Your task to perform on an android device: Go to Reddit.com Image 0: 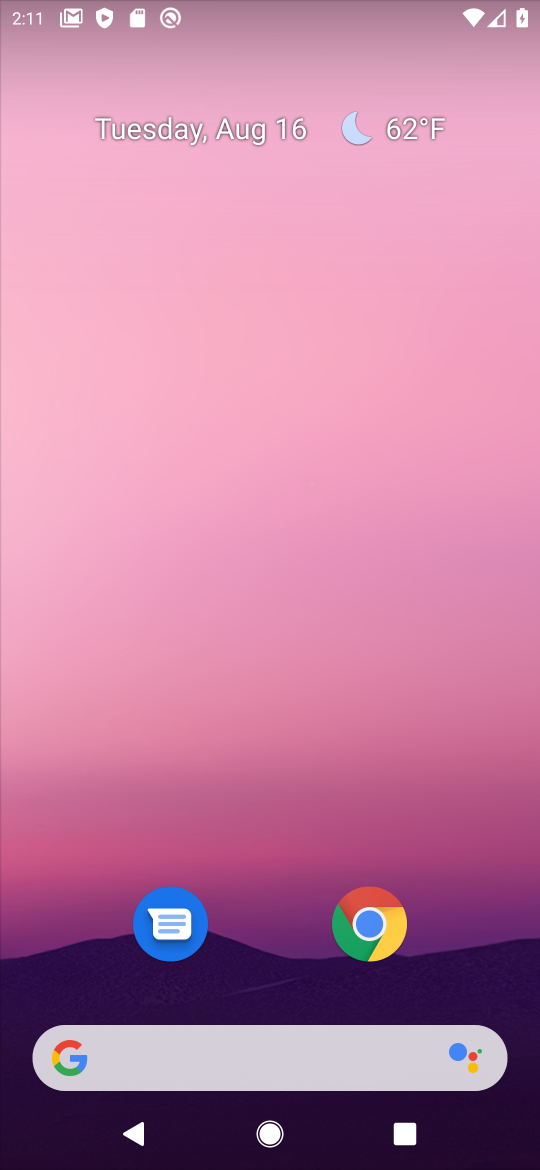
Step 0: click (367, 928)
Your task to perform on an android device: Go to Reddit.com Image 1: 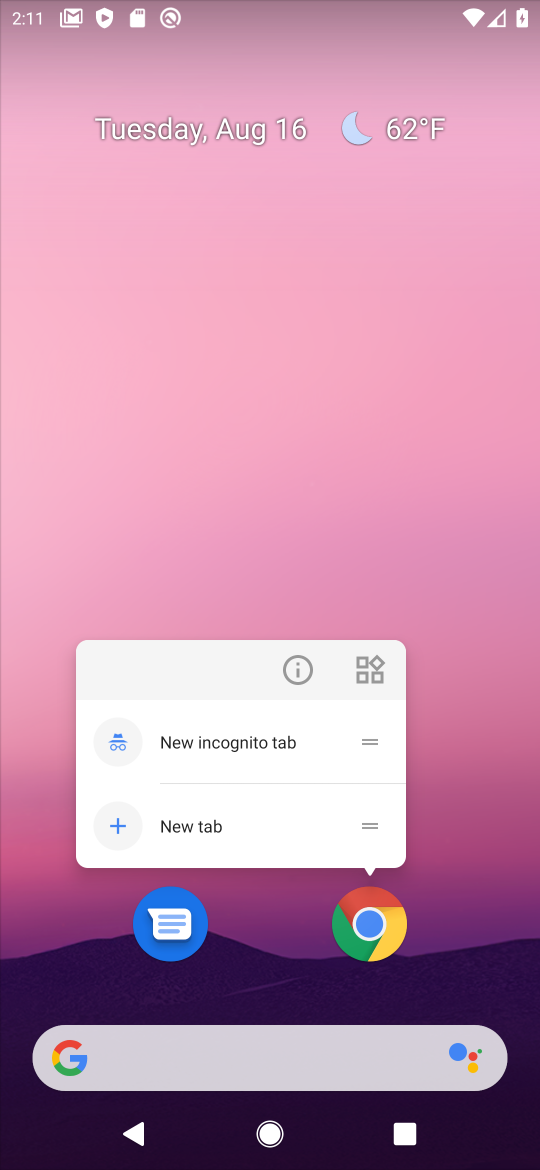
Step 1: click (367, 928)
Your task to perform on an android device: Go to Reddit.com Image 2: 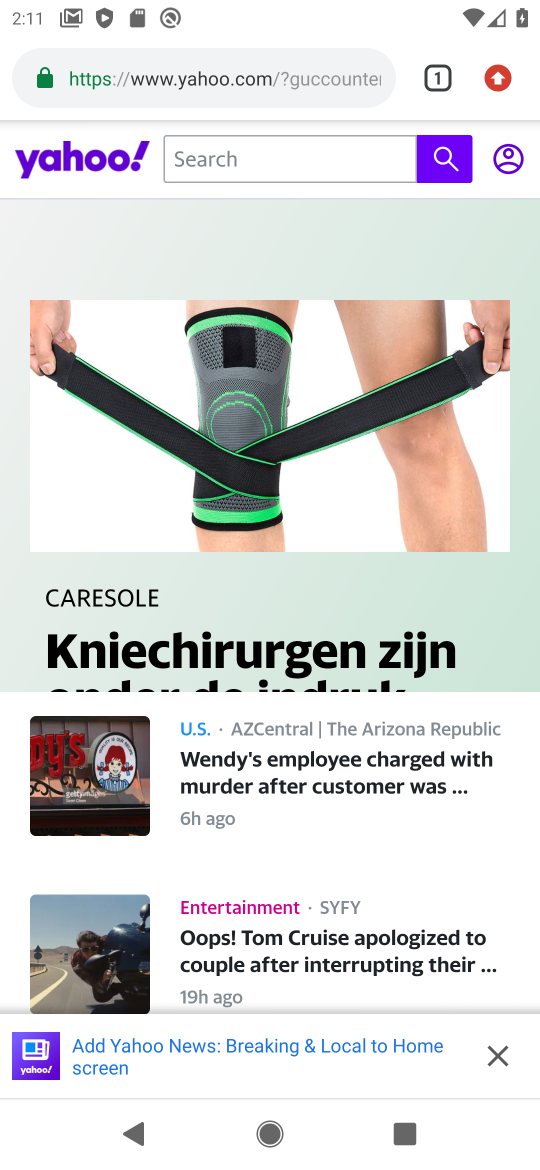
Step 2: click (346, 59)
Your task to perform on an android device: Go to Reddit.com Image 3: 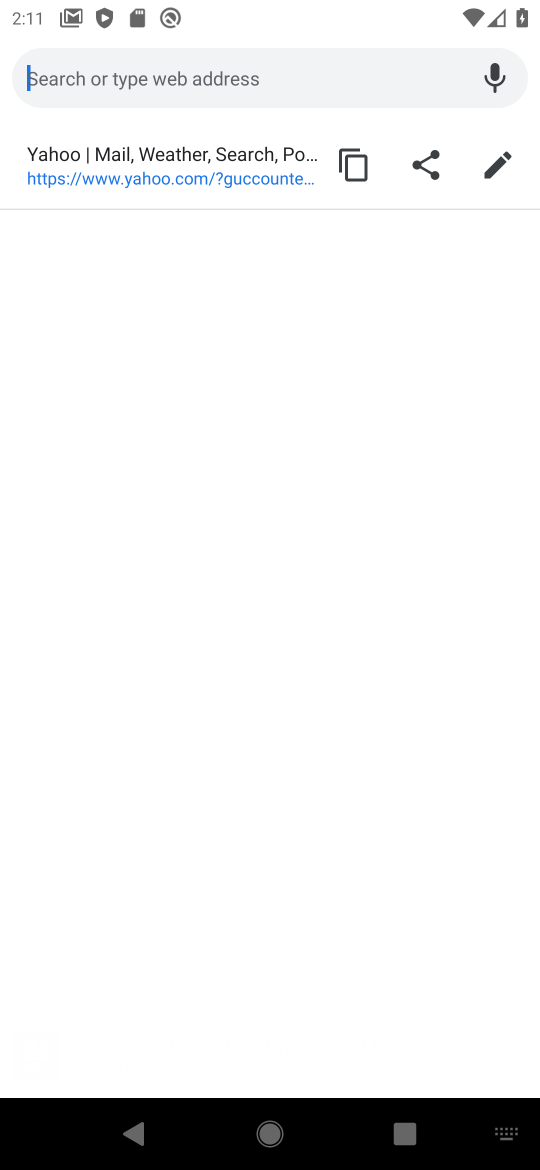
Step 3: type "reddit.com"
Your task to perform on an android device: Go to Reddit.com Image 4: 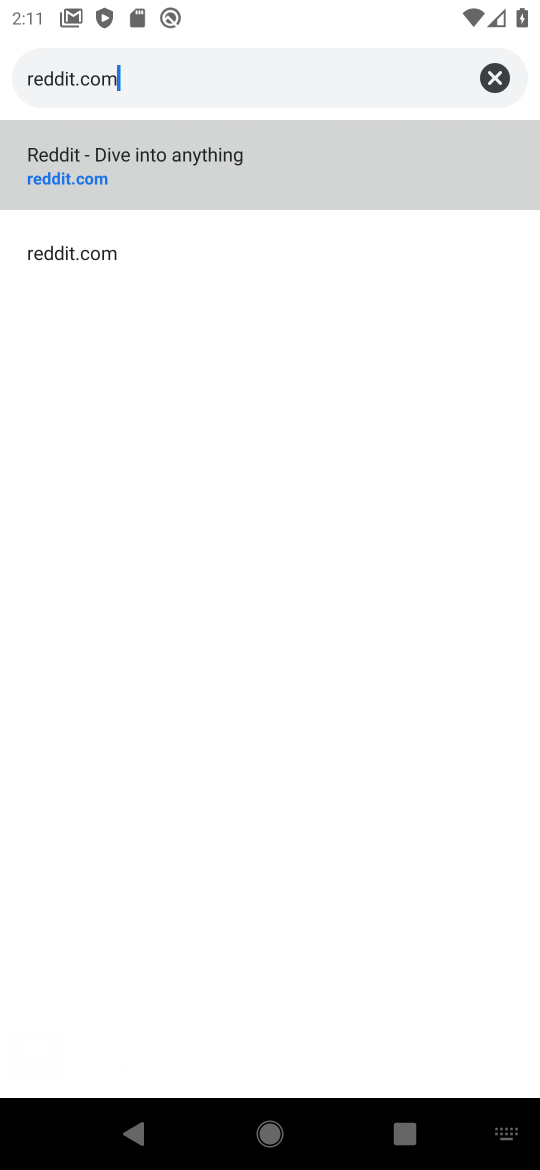
Step 4: click (135, 146)
Your task to perform on an android device: Go to Reddit.com Image 5: 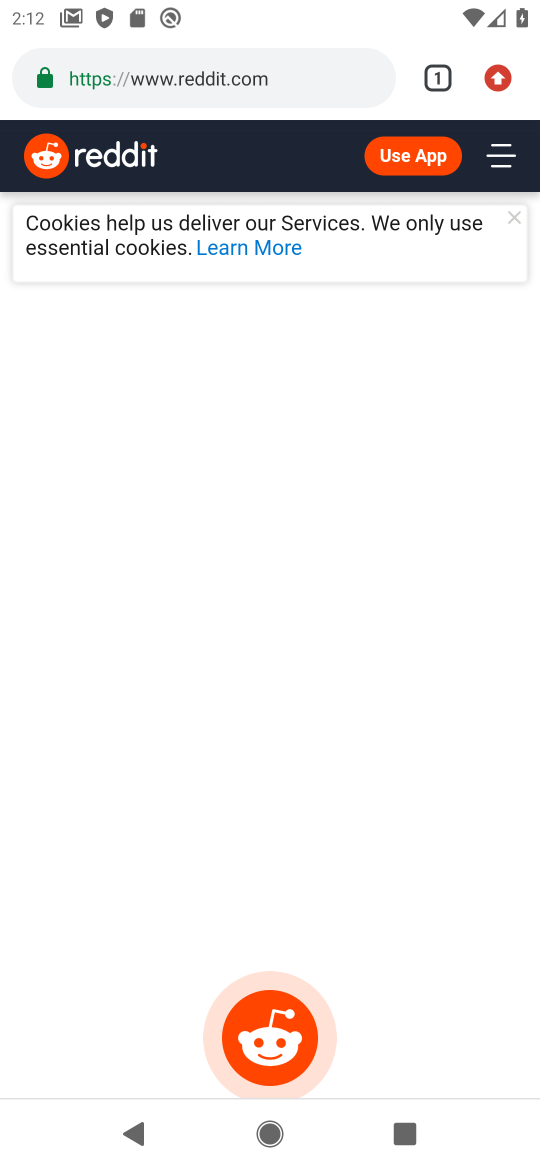
Step 5: task complete